Your task to perform on an android device: Open notification settings Image 0: 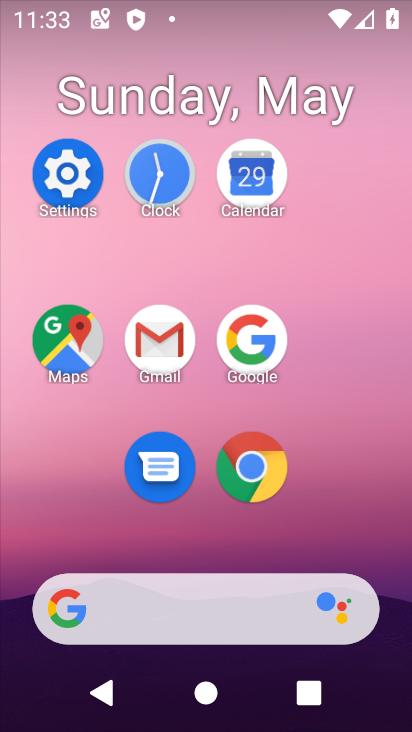
Step 0: click (60, 180)
Your task to perform on an android device: Open notification settings Image 1: 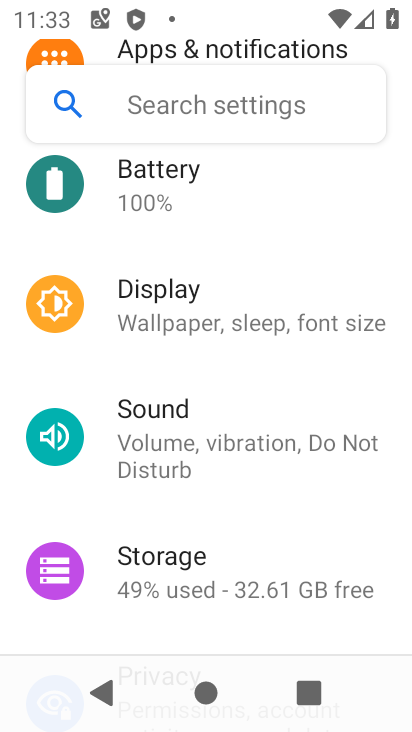
Step 1: drag from (294, 214) to (250, 627)
Your task to perform on an android device: Open notification settings Image 2: 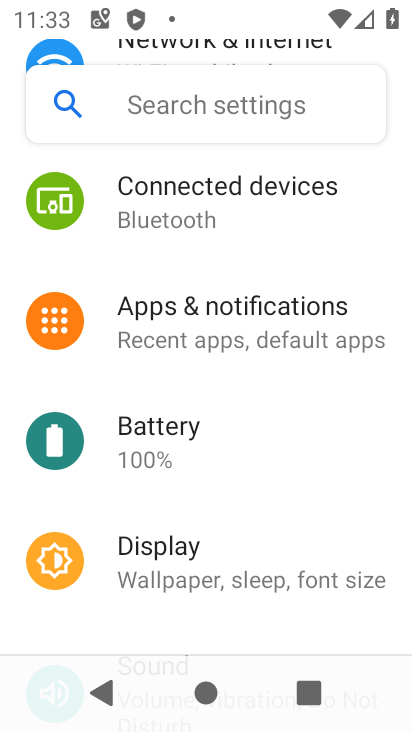
Step 2: click (240, 317)
Your task to perform on an android device: Open notification settings Image 3: 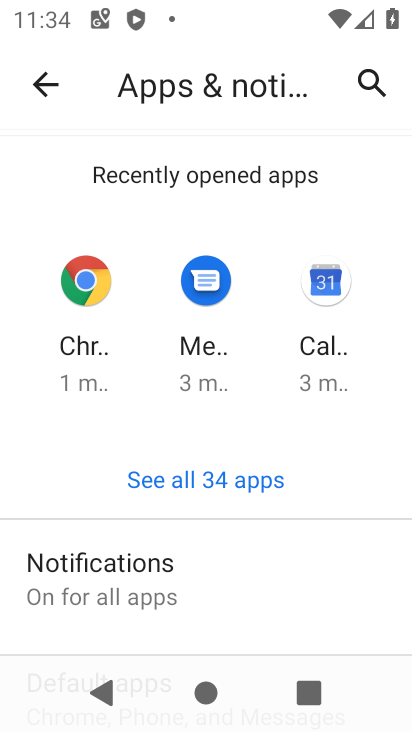
Step 3: task complete